Your task to perform on an android device: Go to Yahoo.com Image 0: 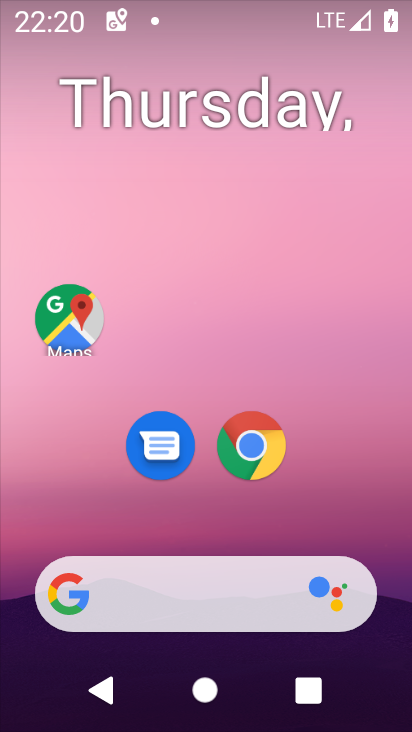
Step 0: drag from (290, 519) to (286, 198)
Your task to perform on an android device: Go to Yahoo.com Image 1: 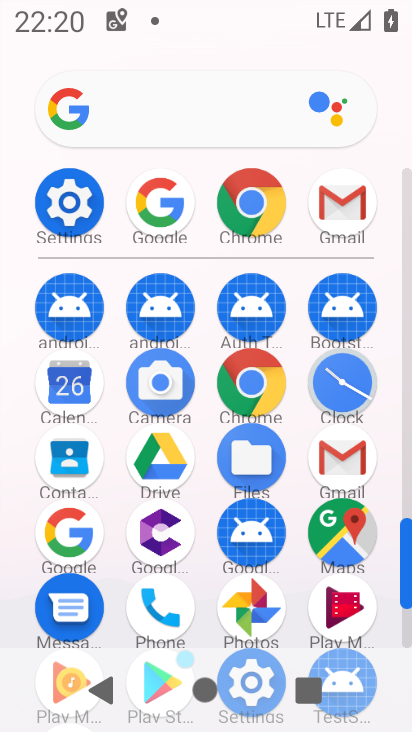
Step 1: drag from (203, 264) to (230, 117)
Your task to perform on an android device: Go to Yahoo.com Image 2: 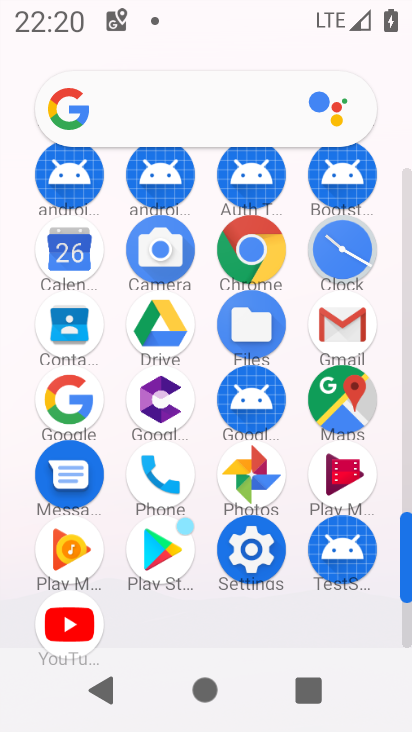
Step 2: click (237, 257)
Your task to perform on an android device: Go to Yahoo.com Image 3: 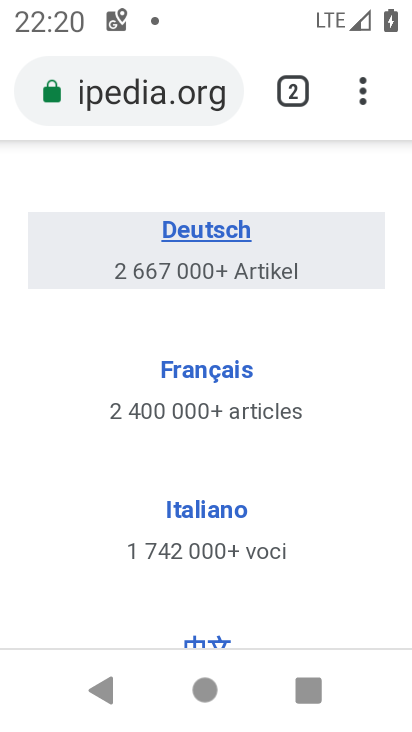
Step 3: click (293, 101)
Your task to perform on an android device: Go to Yahoo.com Image 4: 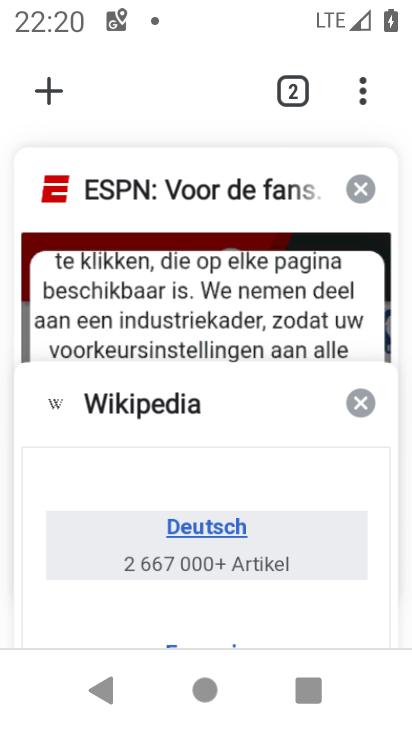
Step 4: click (46, 92)
Your task to perform on an android device: Go to Yahoo.com Image 5: 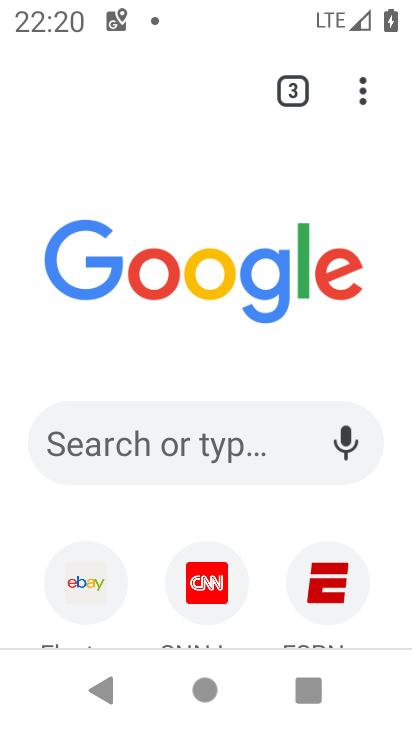
Step 5: drag from (158, 496) to (193, 136)
Your task to perform on an android device: Go to Yahoo.com Image 6: 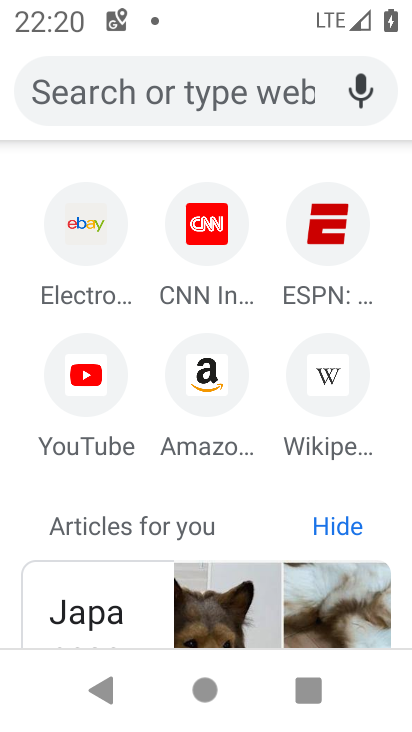
Step 6: click (181, 100)
Your task to perform on an android device: Go to Yahoo.com Image 7: 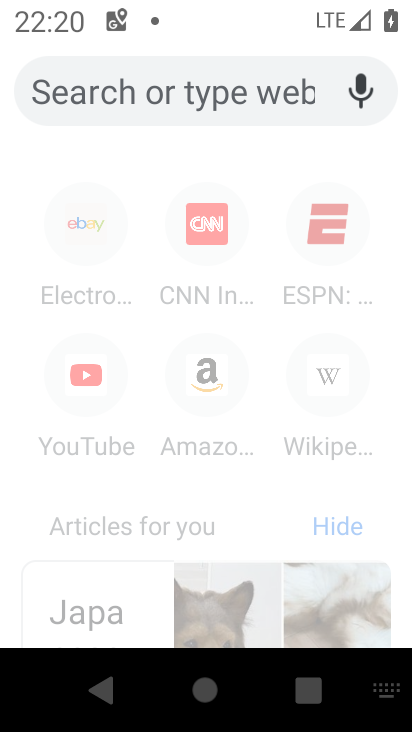
Step 7: type "Yahoo.com"
Your task to perform on an android device: Go to Yahoo.com Image 8: 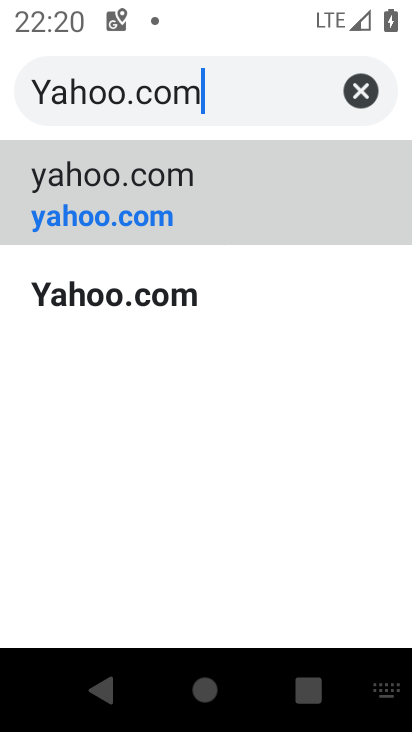
Step 8: type ""
Your task to perform on an android device: Go to Yahoo.com Image 9: 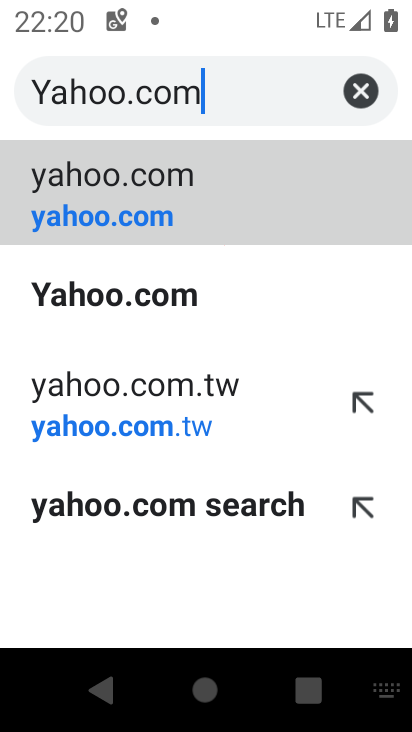
Step 9: click (173, 196)
Your task to perform on an android device: Go to Yahoo.com Image 10: 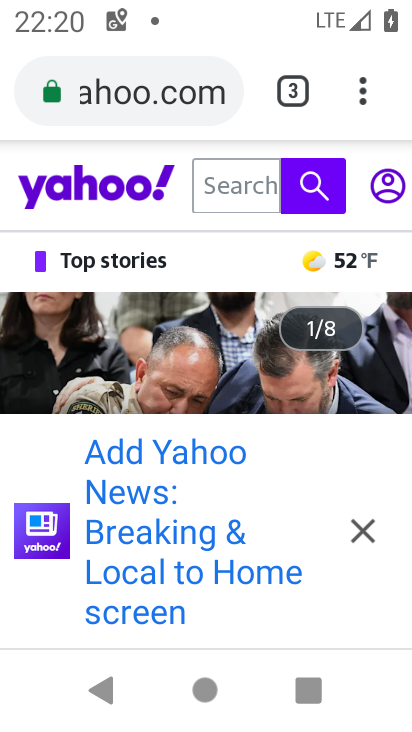
Step 10: task complete